Your task to perform on an android device: toggle pop-ups in chrome Image 0: 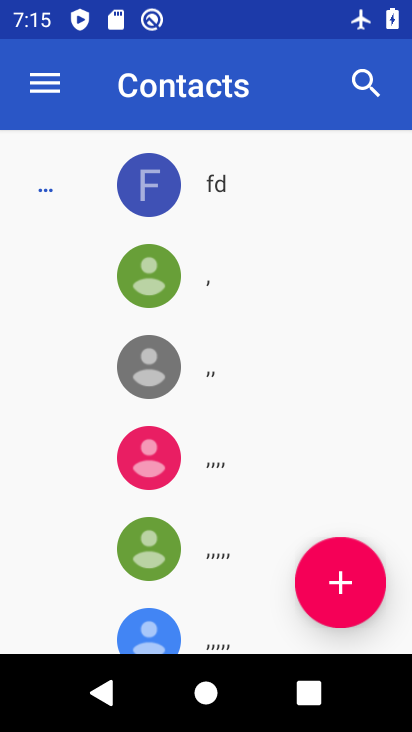
Step 0: press home button
Your task to perform on an android device: toggle pop-ups in chrome Image 1: 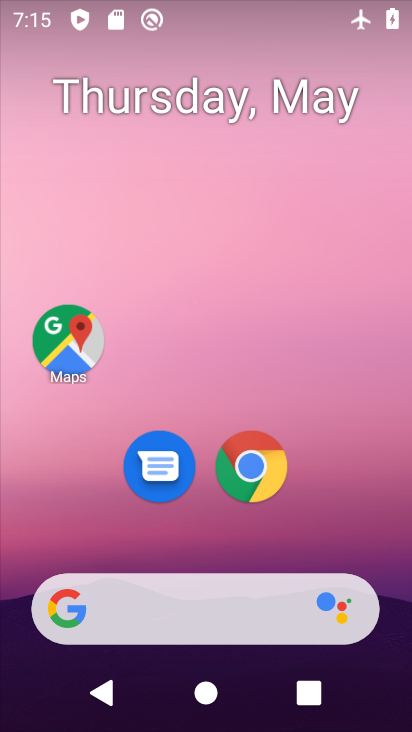
Step 1: click (256, 467)
Your task to perform on an android device: toggle pop-ups in chrome Image 2: 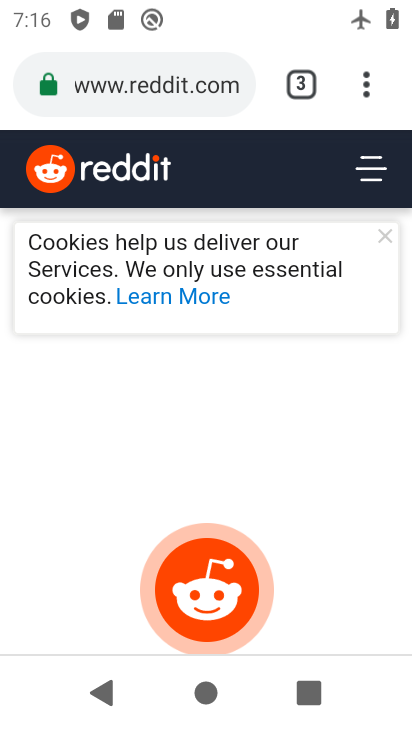
Step 2: click (367, 77)
Your task to perform on an android device: toggle pop-ups in chrome Image 3: 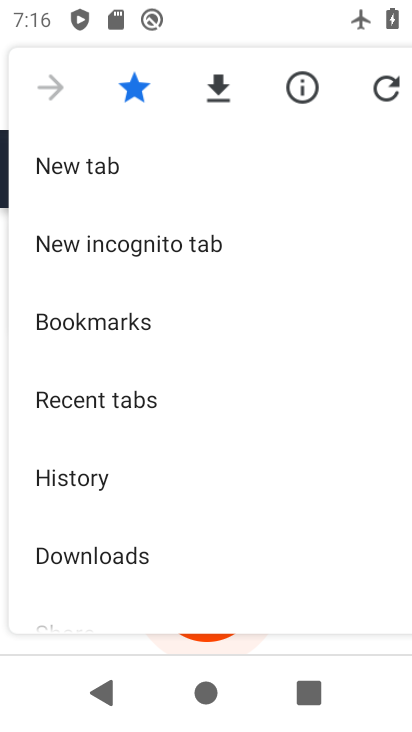
Step 3: drag from (209, 504) to (148, 149)
Your task to perform on an android device: toggle pop-ups in chrome Image 4: 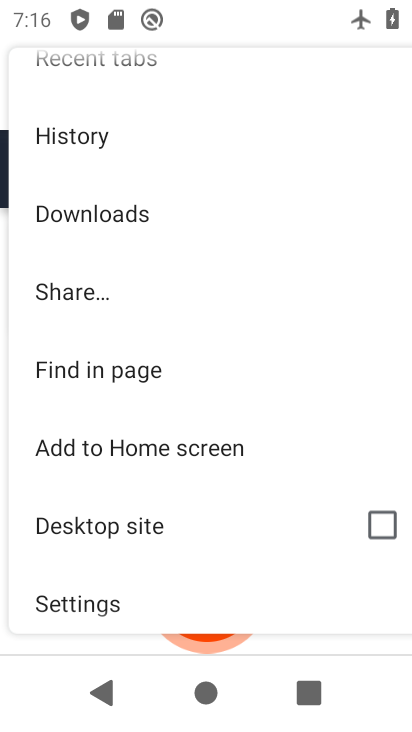
Step 4: click (74, 601)
Your task to perform on an android device: toggle pop-ups in chrome Image 5: 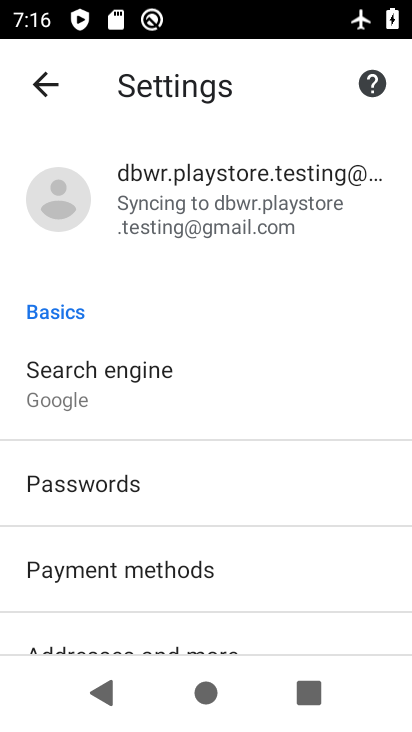
Step 5: drag from (285, 533) to (248, 215)
Your task to perform on an android device: toggle pop-ups in chrome Image 6: 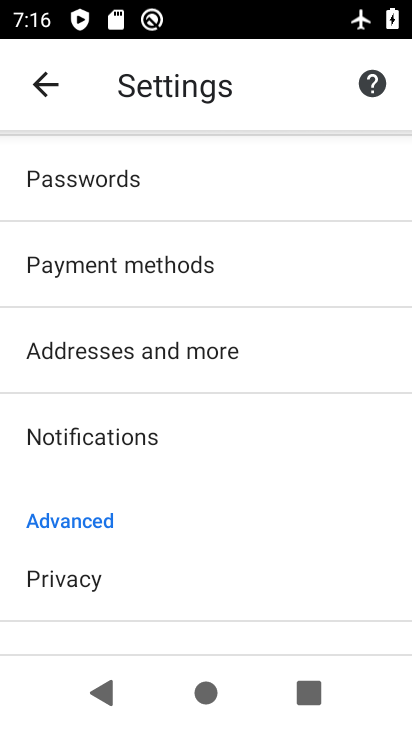
Step 6: drag from (258, 565) to (135, 134)
Your task to perform on an android device: toggle pop-ups in chrome Image 7: 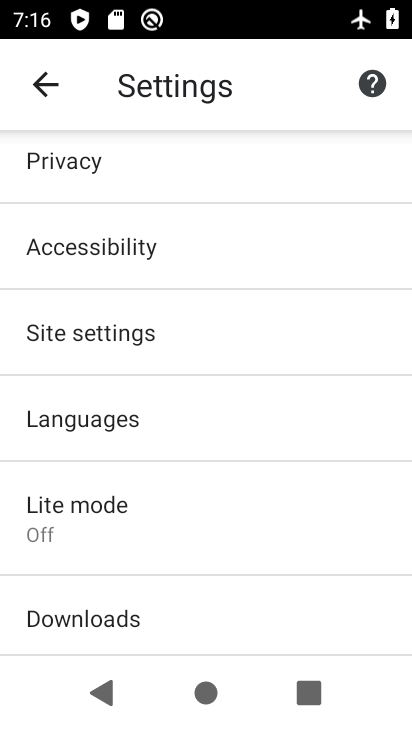
Step 7: click (120, 330)
Your task to perform on an android device: toggle pop-ups in chrome Image 8: 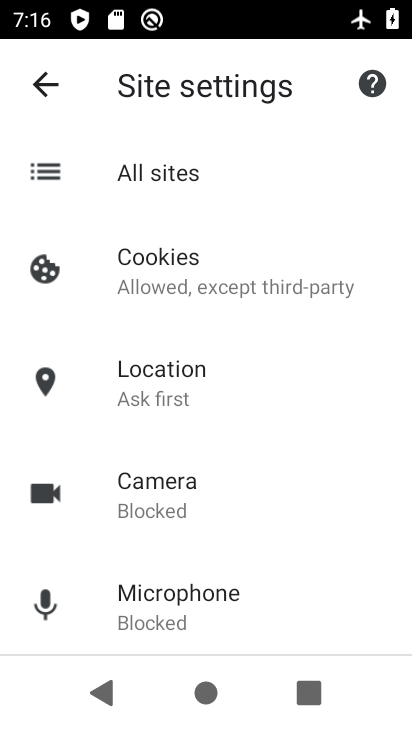
Step 8: drag from (264, 533) to (200, 171)
Your task to perform on an android device: toggle pop-ups in chrome Image 9: 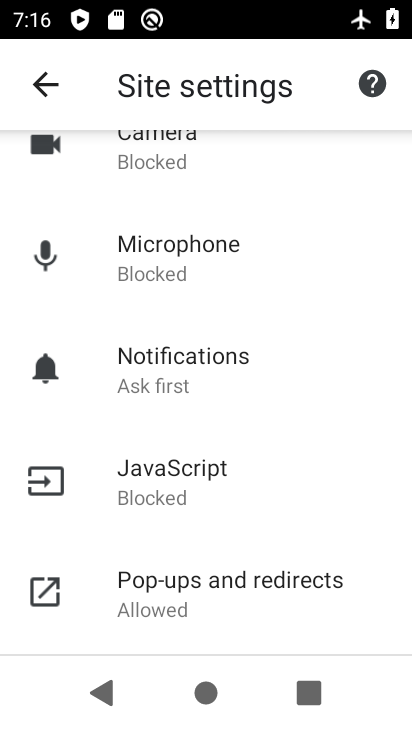
Step 9: click (181, 583)
Your task to perform on an android device: toggle pop-ups in chrome Image 10: 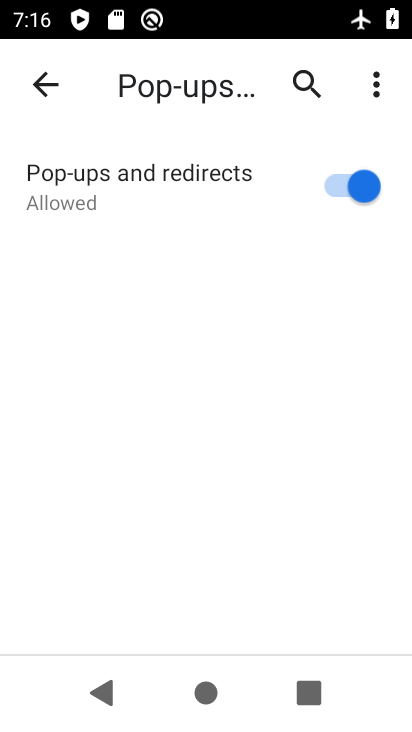
Step 10: click (354, 182)
Your task to perform on an android device: toggle pop-ups in chrome Image 11: 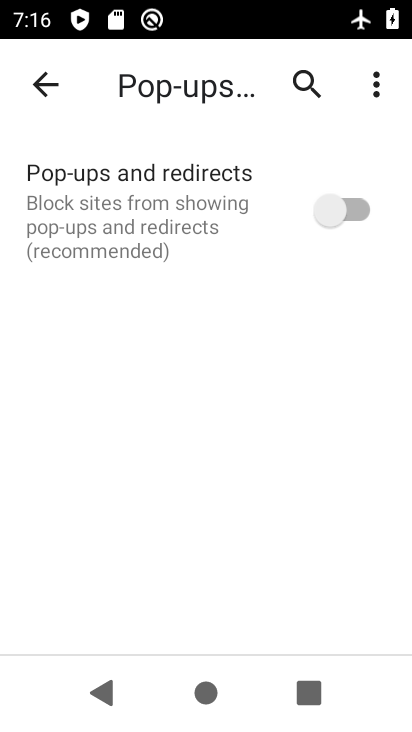
Step 11: task complete